Your task to perform on an android device: Open notification settings Image 0: 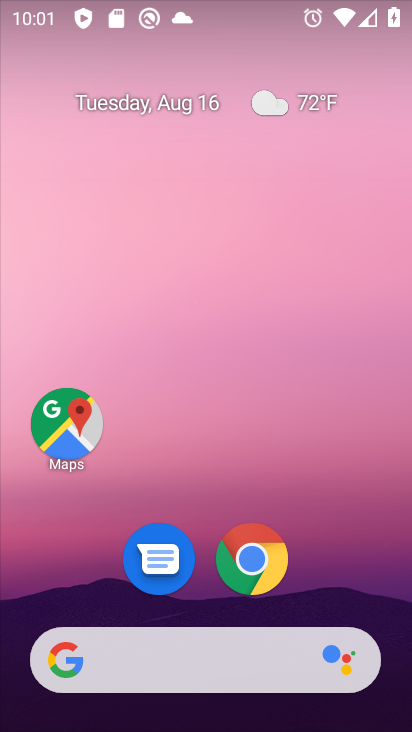
Step 0: drag from (191, 667) to (236, 111)
Your task to perform on an android device: Open notification settings Image 1: 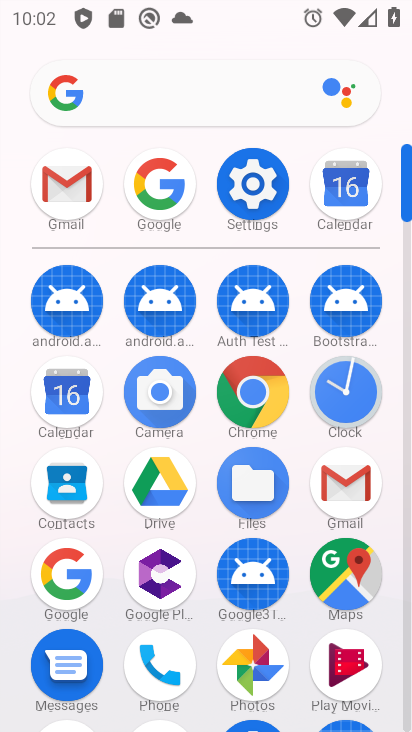
Step 1: click (256, 187)
Your task to perform on an android device: Open notification settings Image 2: 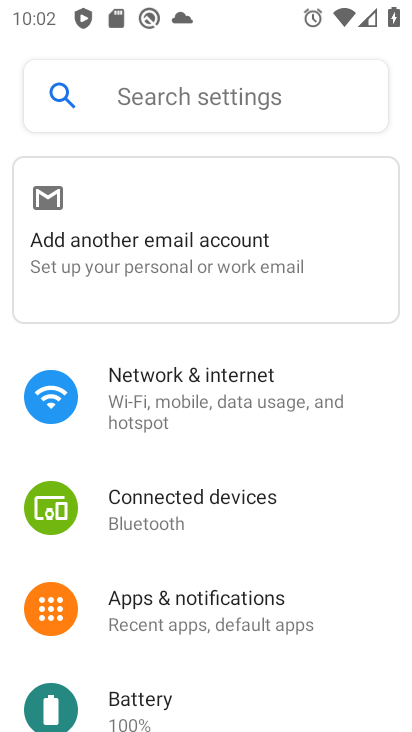
Step 2: drag from (193, 665) to (260, 548)
Your task to perform on an android device: Open notification settings Image 3: 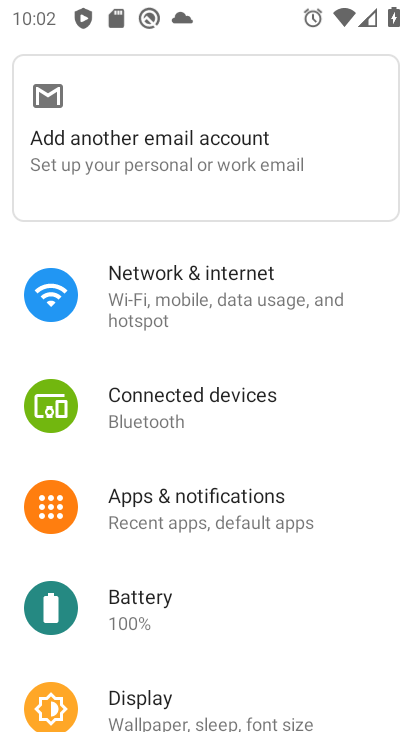
Step 3: click (230, 510)
Your task to perform on an android device: Open notification settings Image 4: 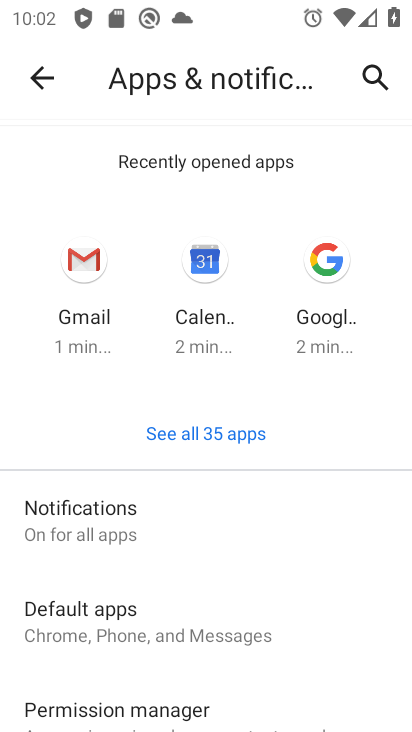
Step 4: click (113, 519)
Your task to perform on an android device: Open notification settings Image 5: 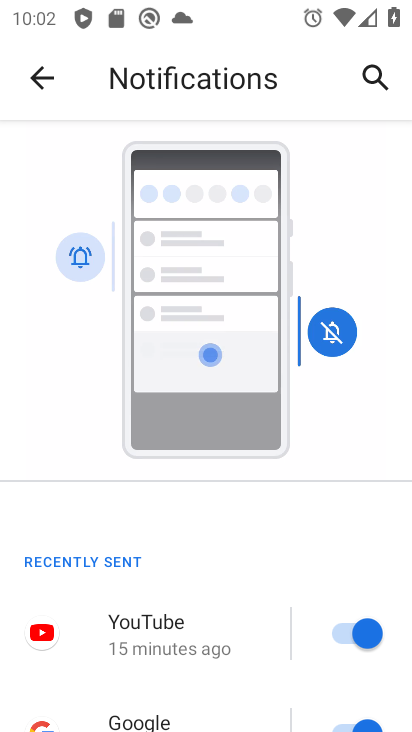
Step 5: task complete